Your task to perform on an android device: Open Wikipedia Image 0: 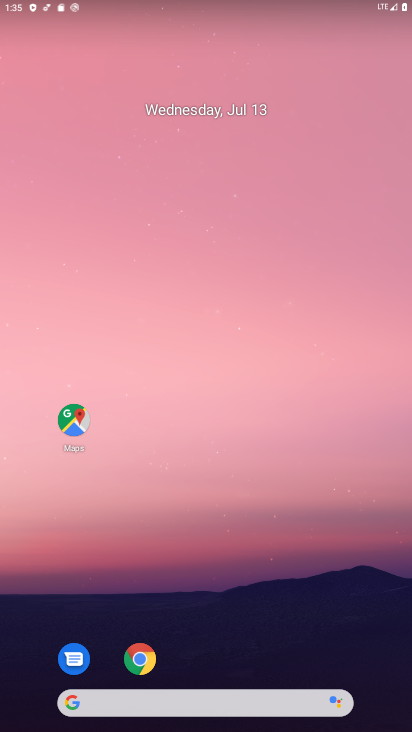
Step 0: click (140, 658)
Your task to perform on an android device: Open Wikipedia Image 1: 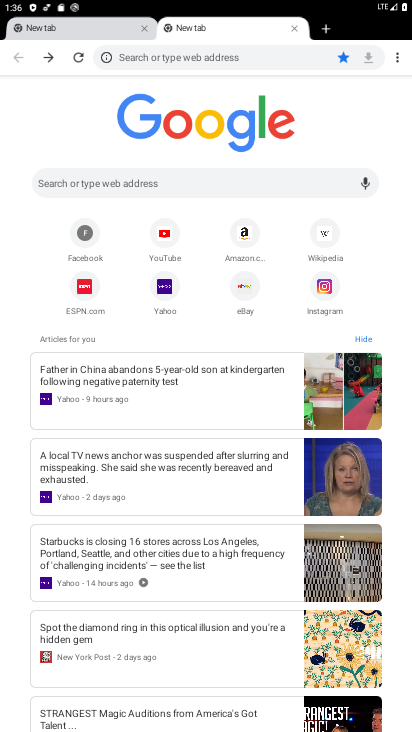
Step 1: click (155, 176)
Your task to perform on an android device: Open Wikipedia Image 2: 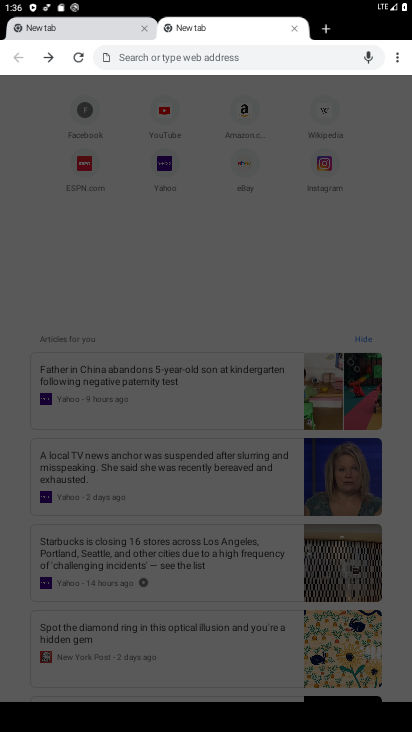
Step 2: type "Wikipedia"
Your task to perform on an android device: Open Wikipedia Image 3: 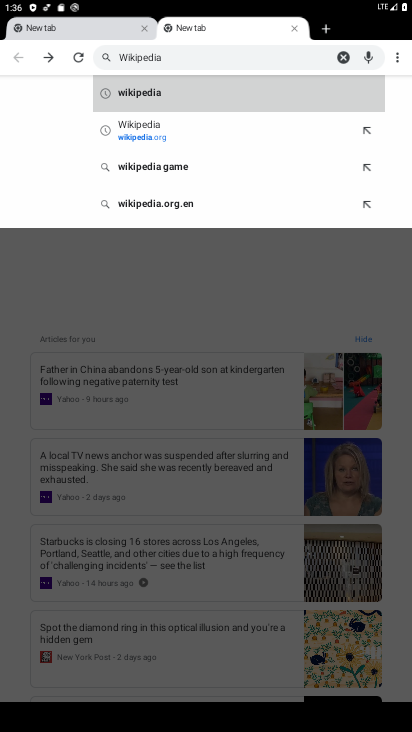
Step 3: click (122, 85)
Your task to perform on an android device: Open Wikipedia Image 4: 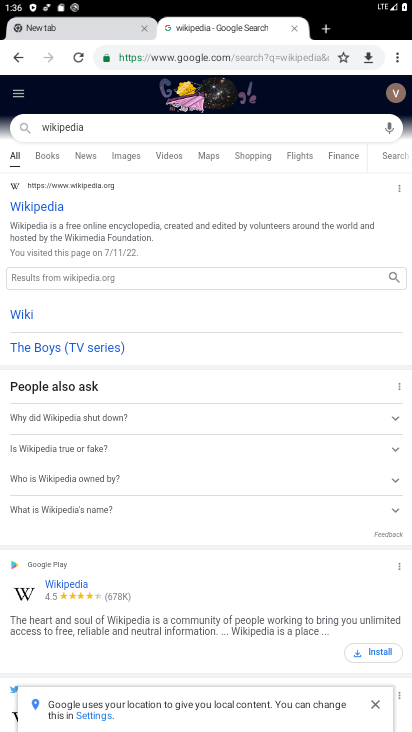
Step 4: click (45, 210)
Your task to perform on an android device: Open Wikipedia Image 5: 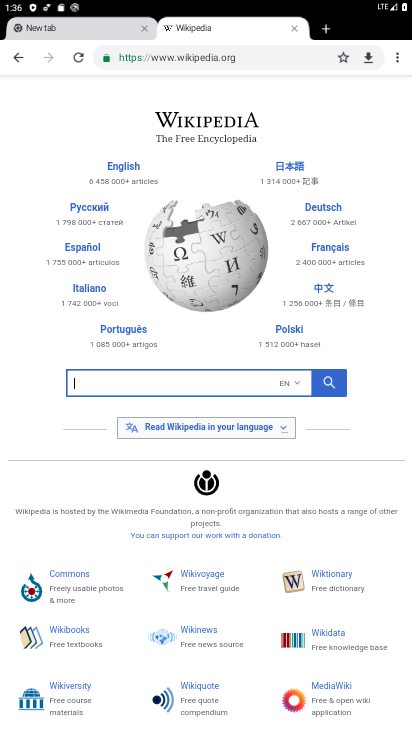
Step 5: task complete